Your task to perform on an android device: Open the calendar and show me this week's events? Image 0: 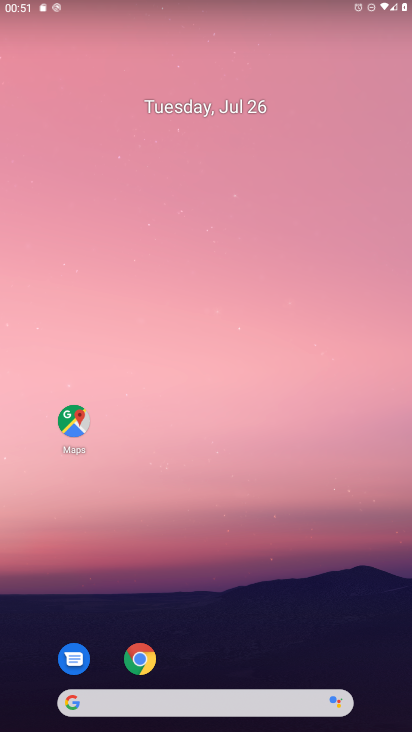
Step 0: drag from (305, 618) to (322, 147)
Your task to perform on an android device: Open the calendar and show me this week's events? Image 1: 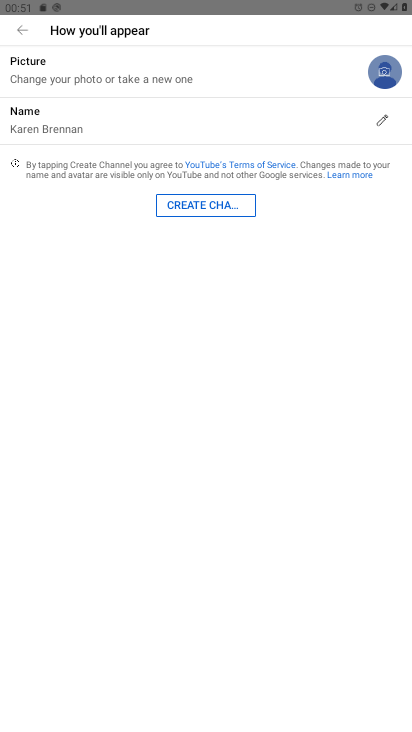
Step 1: press home button
Your task to perform on an android device: Open the calendar and show me this week's events? Image 2: 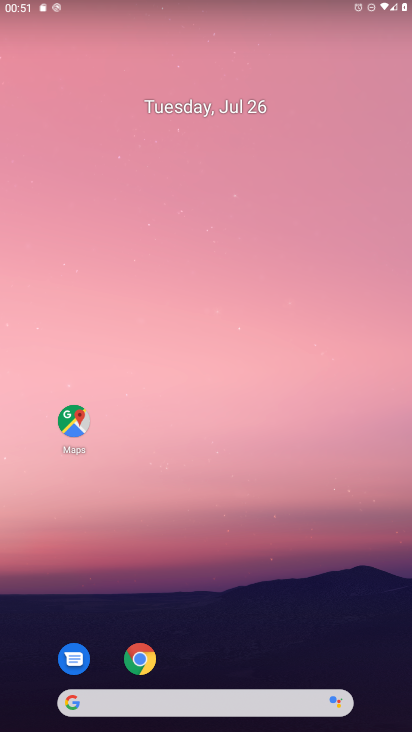
Step 2: drag from (287, 604) to (301, 74)
Your task to perform on an android device: Open the calendar and show me this week's events? Image 3: 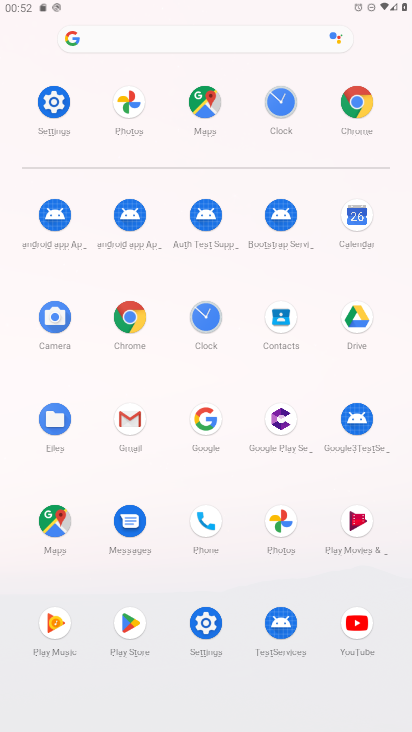
Step 3: click (357, 218)
Your task to perform on an android device: Open the calendar and show me this week's events? Image 4: 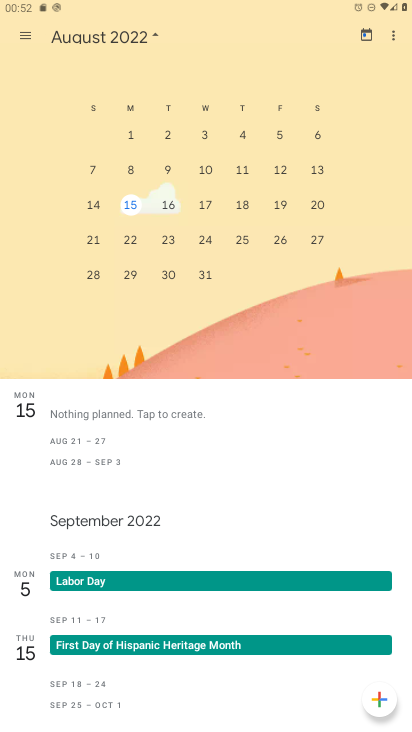
Step 4: drag from (141, 198) to (367, 214)
Your task to perform on an android device: Open the calendar and show me this week's events? Image 5: 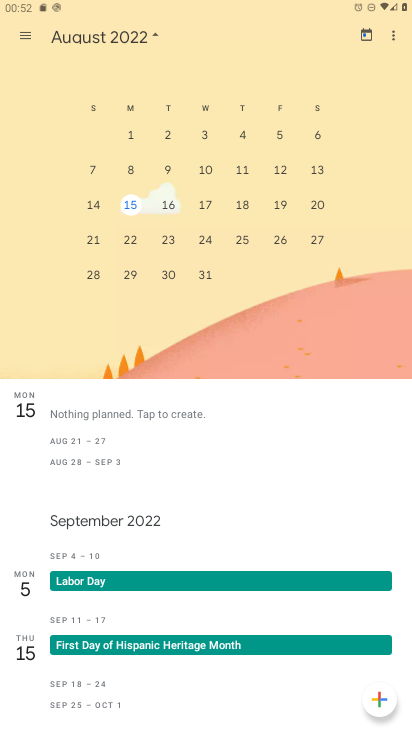
Step 5: drag from (51, 164) to (408, 232)
Your task to perform on an android device: Open the calendar and show me this week's events? Image 6: 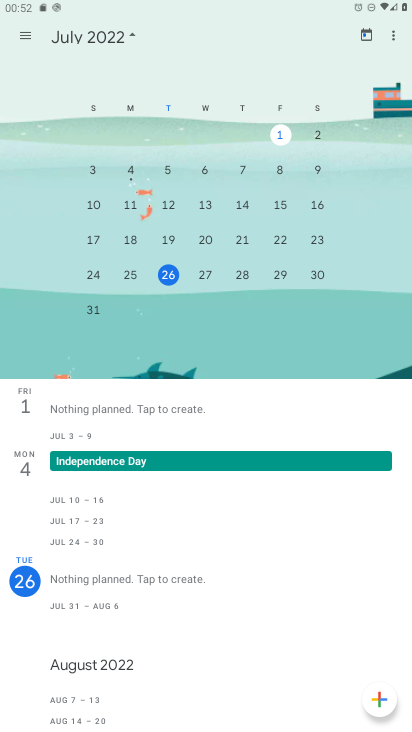
Step 6: click (282, 269)
Your task to perform on an android device: Open the calendar and show me this week's events? Image 7: 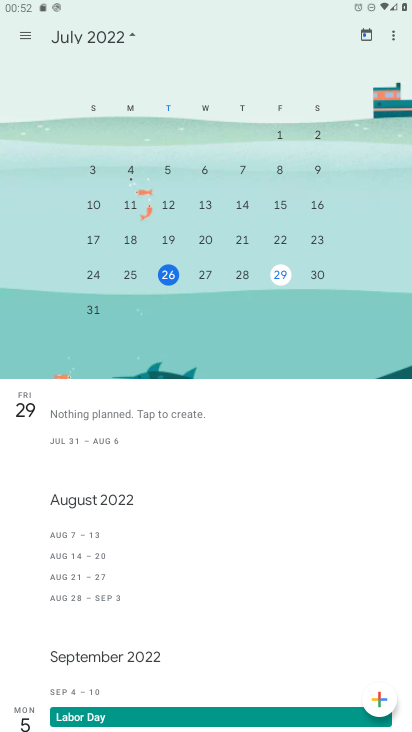
Step 7: click (315, 267)
Your task to perform on an android device: Open the calendar and show me this week's events? Image 8: 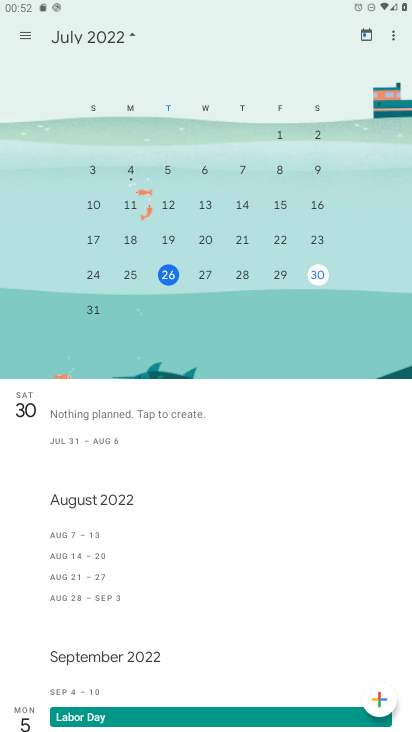
Step 8: task complete